Your task to perform on an android device: Go to CNN.com Image 0: 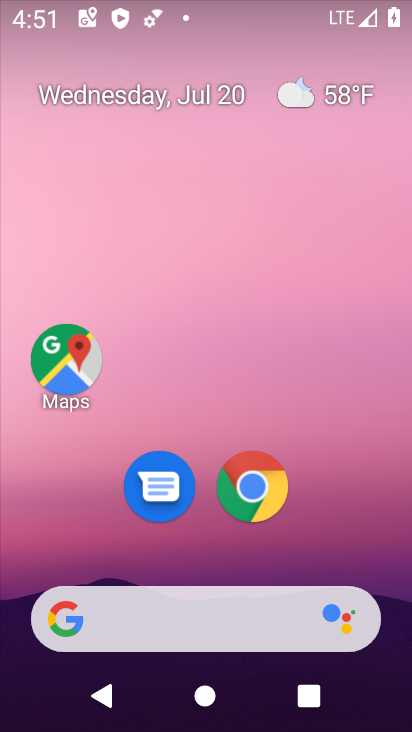
Step 0: click (240, 494)
Your task to perform on an android device: Go to CNN.com Image 1: 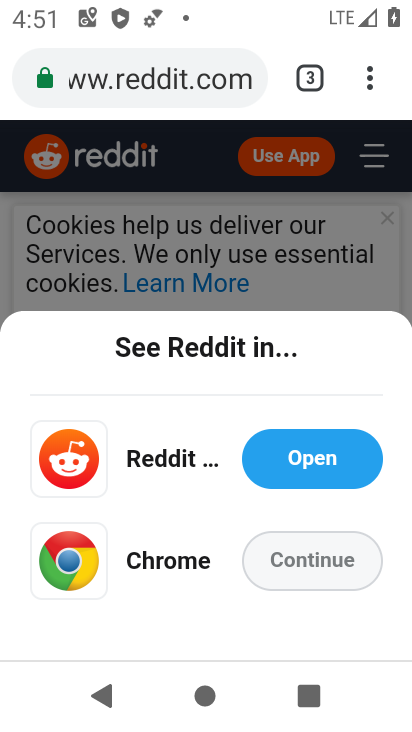
Step 1: click (294, 70)
Your task to perform on an android device: Go to CNN.com Image 2: 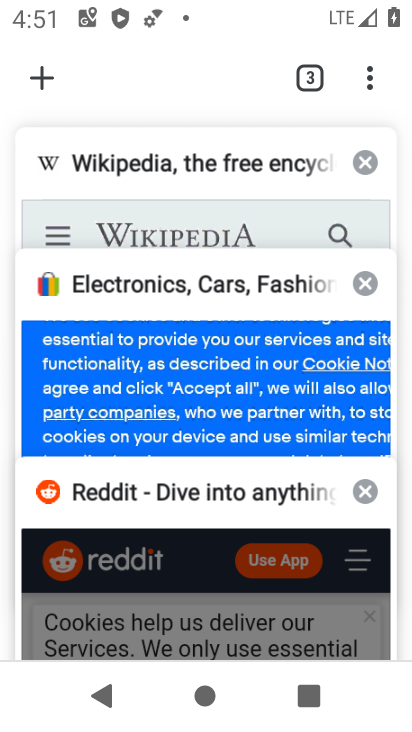
Step 2: click (38, 82)
Your task to perform on an android device: Go to CNN.com Image 3: 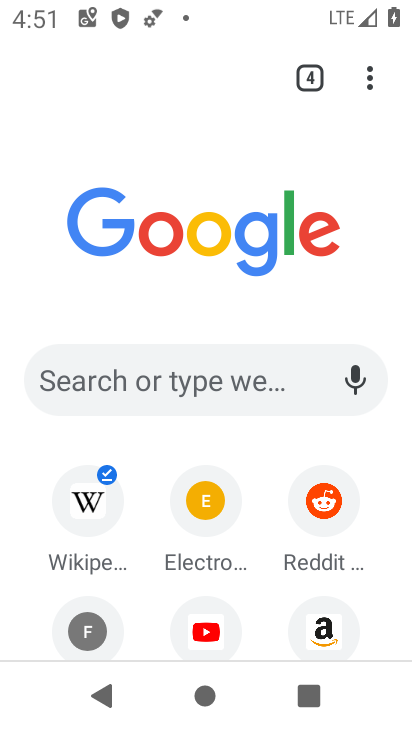
Step 3: click (143, 383)
Your task to perform on an android device: Go to CNN.com Image 4: 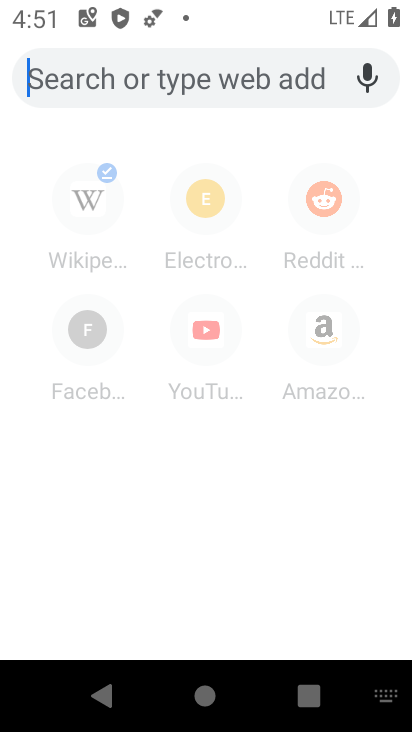
Step 4: type "cnn.com"
Your task to perform on an android device: Go to CNN.com Image 5: 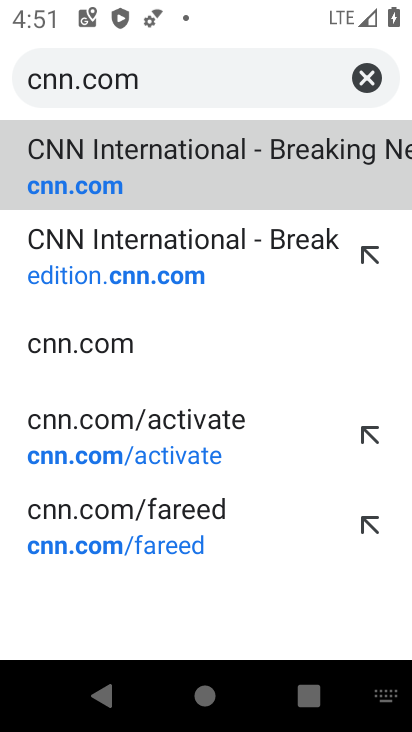
Step 5: click (172, 169)
Your task to perform on an android device: Go to CNN.com Image 6: 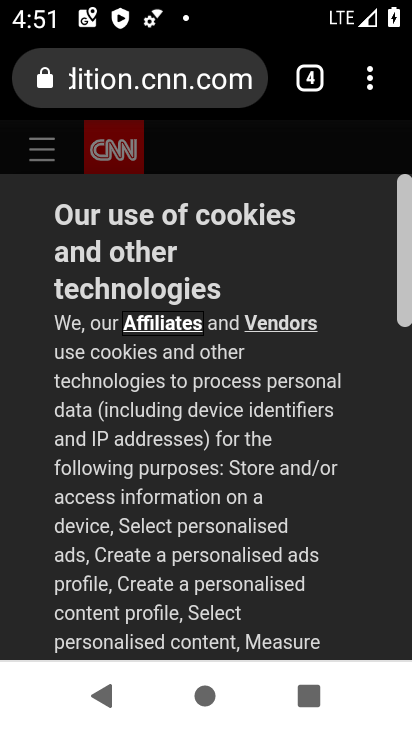
Step 6: task complete